Your task to perform on an android device: find which apps use the phone's location Image 0: 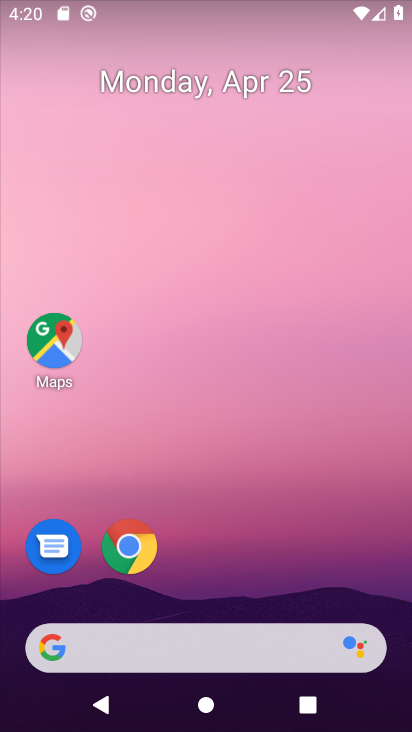
Step 0: drag from (215, 577) to (250, 29)
Your task to perform on an android device: find which apps use the phone's location Image 1: 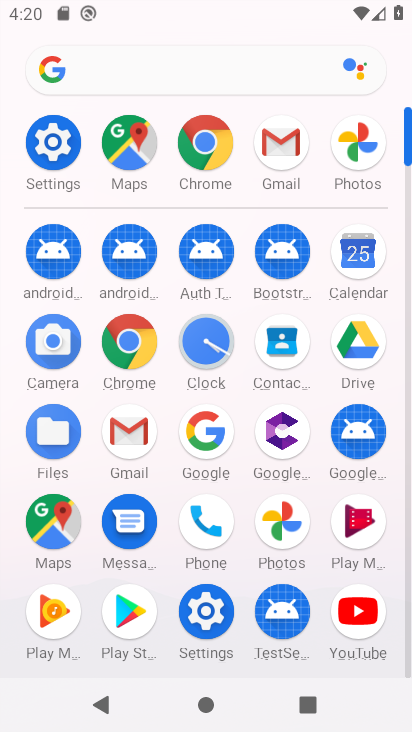
Step 1: click (69, 157)
Your task to perform on an android device: find which apps use the phone's location Image 2: 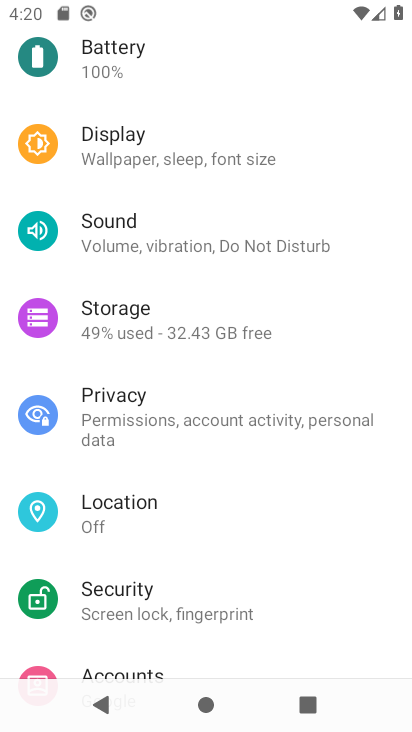
Step 2: click (174, 530)
Your task to perform on an android device: find which apps use the phone's location Image 3: 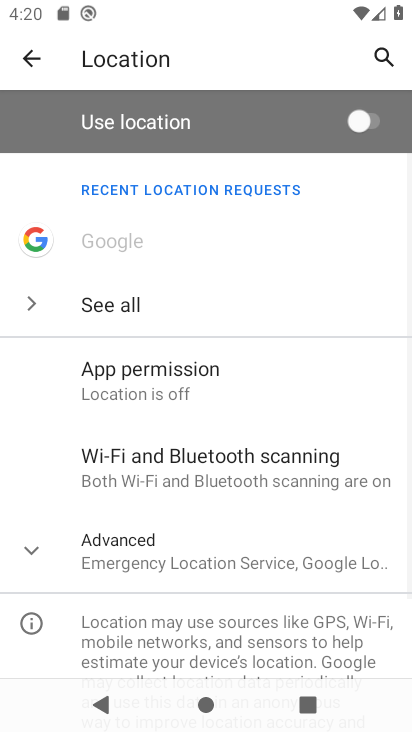
Step 3: click (205, 392)
Your task to perform on an android device: find which apps use the phone's location Image 4: 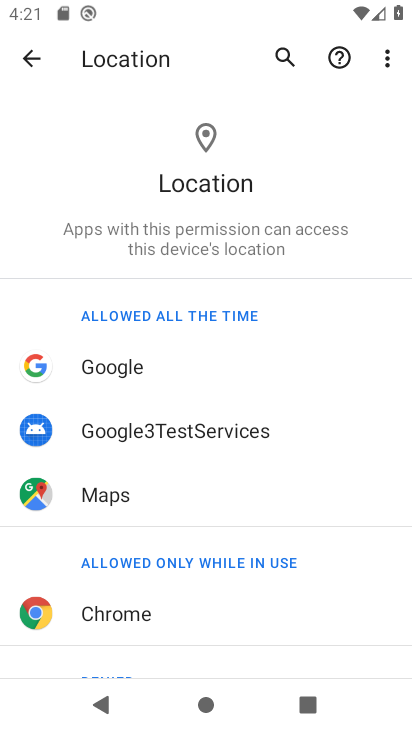
Step 4: task complete